Your task to perform on an android device: turn on the 24-hour format for clock Image 0: 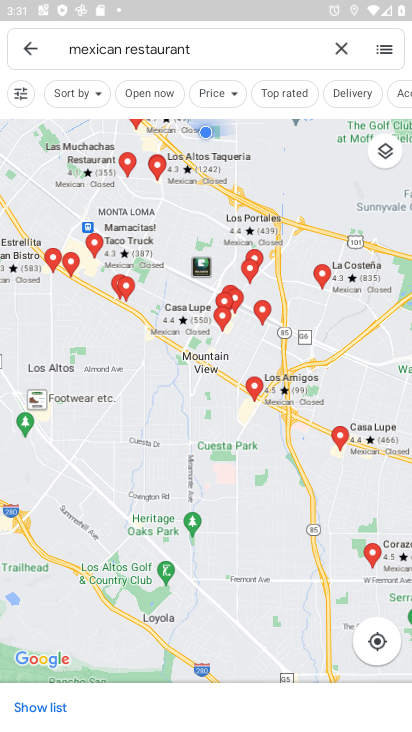
Step 0: press home button
Your task to perform on an android device: turn on the 24-hour format for clock Image 1: 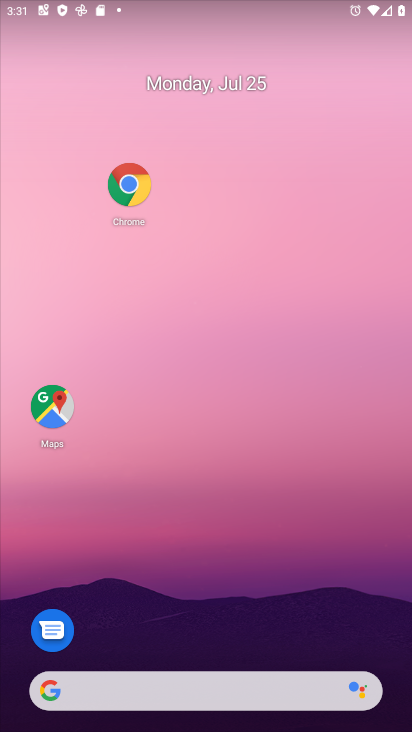
Step 1: drag from (239, 648) to (204, 145)
Your task to perform on an android device: turn on the 24-hour format for clock Image 2: 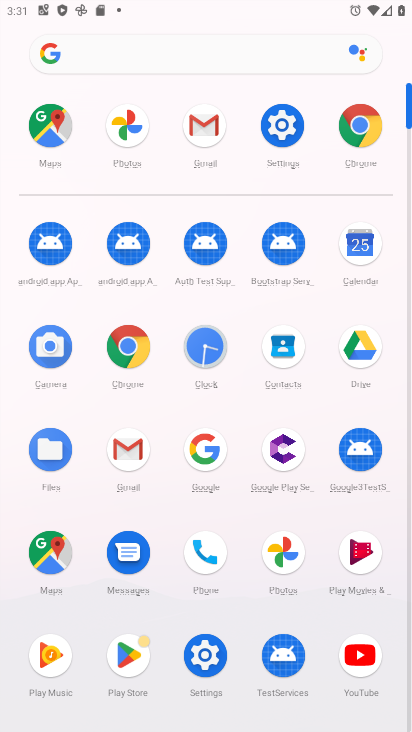
Step 2: click (221, 349)
Your task to perform on an android device: turn on the 24-hour format for clock Image 3: 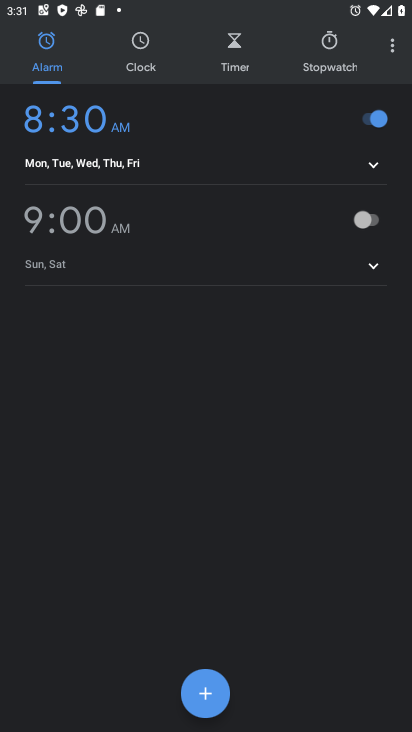
Step 3: task complete